Your task to perform on an android device: Open settings on Google Maps Image 0: 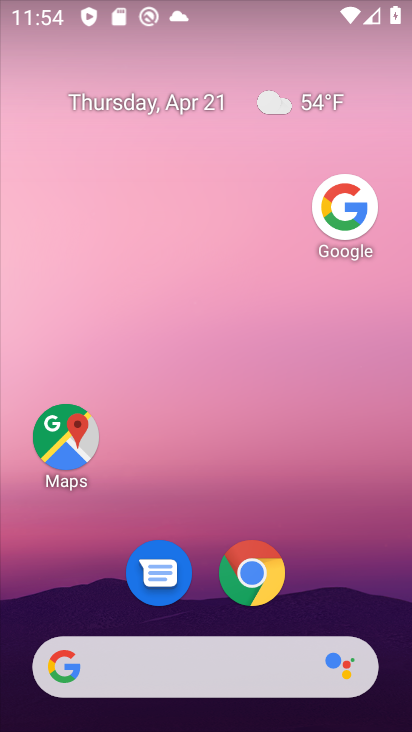
Step 0: drag from (171, 664) to (319, 174)
Your task to perform on an android device: Open settings on Google Maps Image 1: 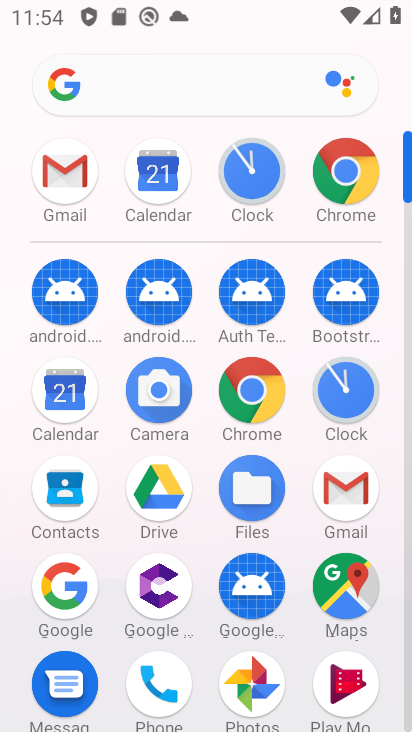
Step 1: click (346, 603)
Your task to perform on an android device: Open settings on Google Maps Image 2: 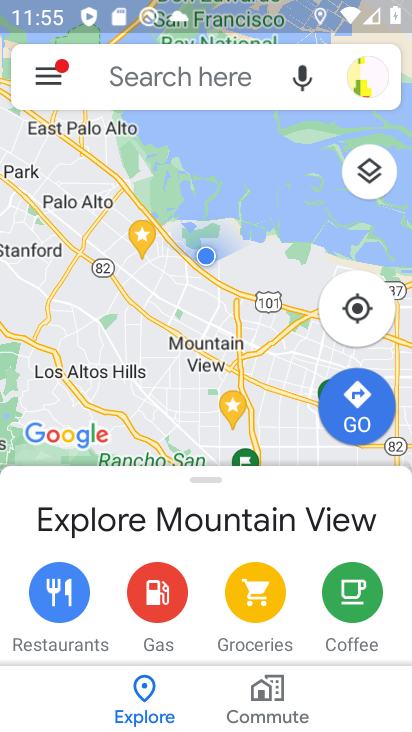
Step 2: click (43, 72)
Your task to perform on an android device: Open settings on Google Maps Image 3: 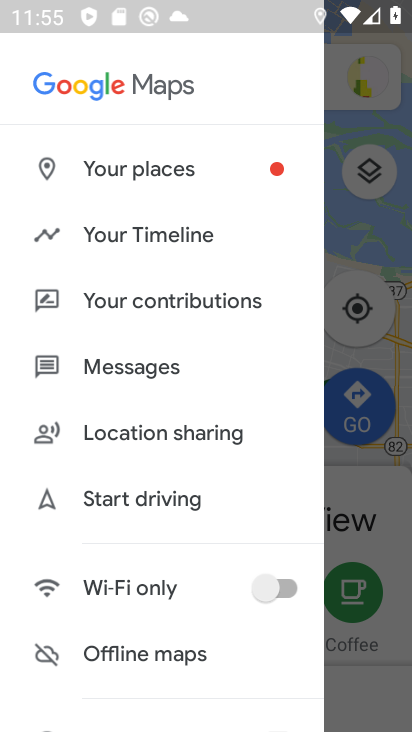
Step 3: drag from (106, 604) to (223, 73)
Your task to perform on an android device: Open settings on Google Maps Image 4: 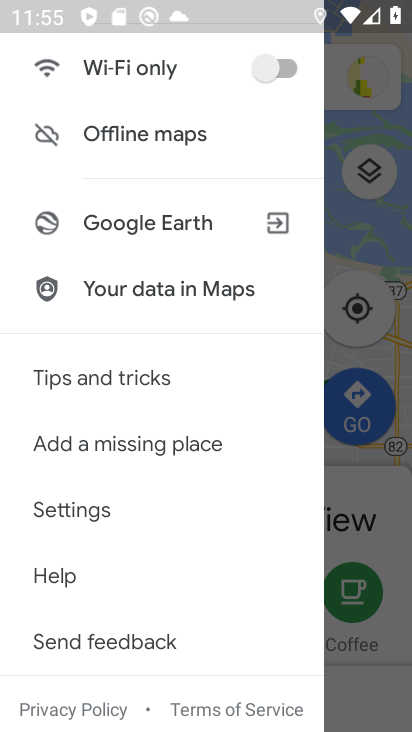
Step 4: click (93, 512)
Your task to perform on an android device: Open settings on Google Maps Image 5: 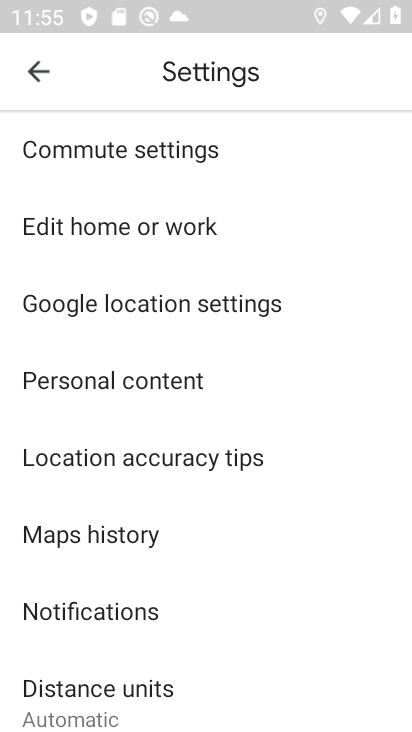
Step 5: task complete